Your task to perform on an android device: Go to display settings Image 0: 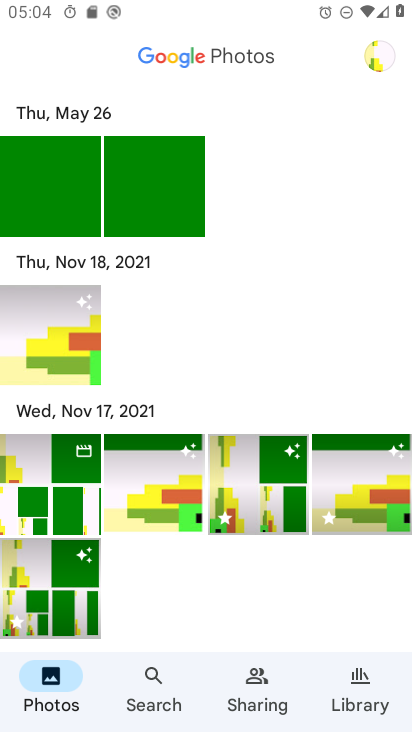
Step 0: press home button
Your task to perform on an android device: Go to display settings Image 1: 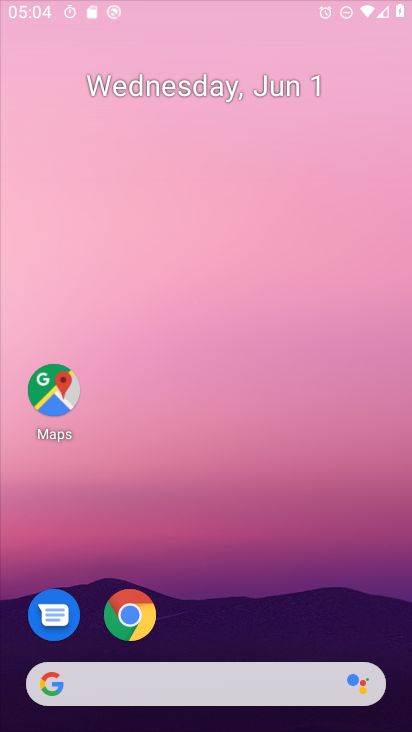
Step 1: drag from (275, 699) to (362, 0)
Your task to perform on an android device: Go to display settings Image 2: 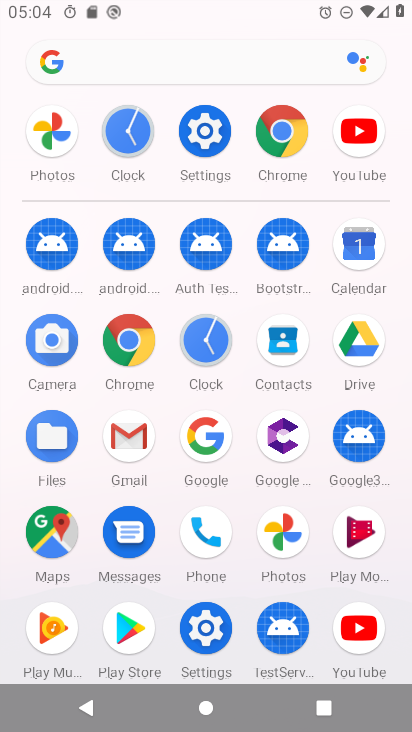
Step 2: click (215, 132)
Your task to perform on an android device: Go to display settings Image 3: 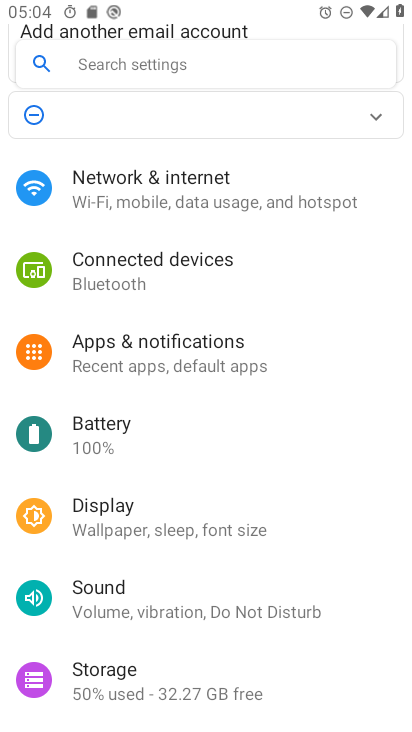
Step 3: click (185, 189)
Your task to perform on an android device: Go to display settings Image 4: 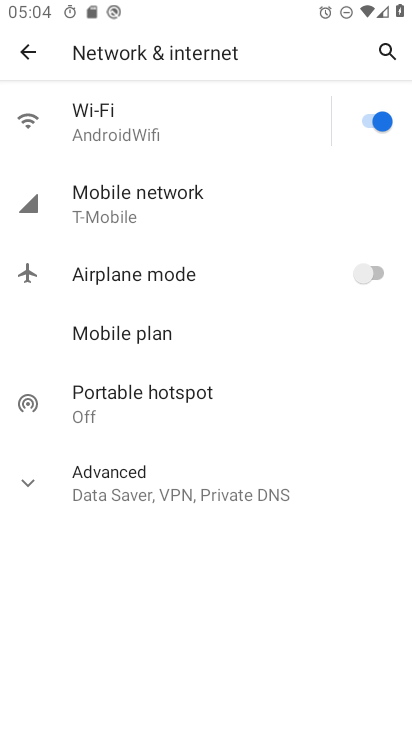
Step 4: press back button
Your task to perform on an android device: Go to display settings Image 5: 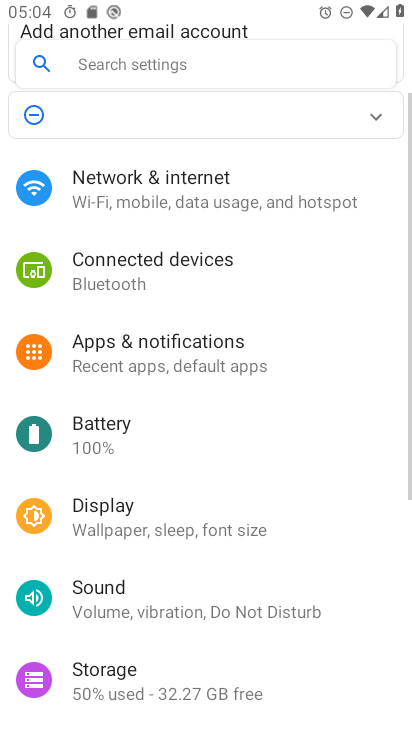
Step 5: click (141, 504)
Your task to perform on an android device: Go to display settings Image 6: 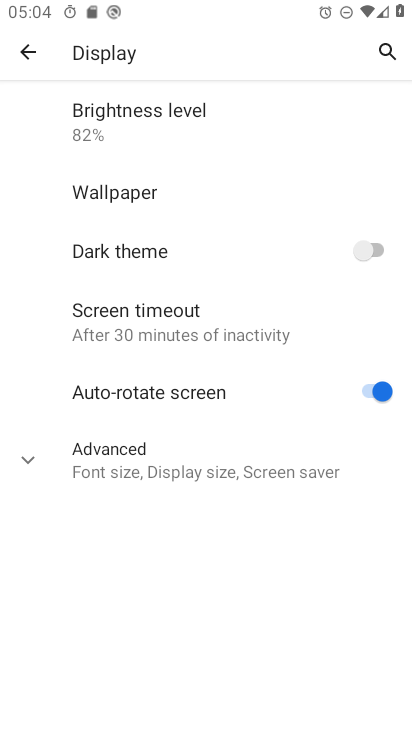
Step 6: task complete